Your task to perform on an android device: Go to Wikipedia Image 0: 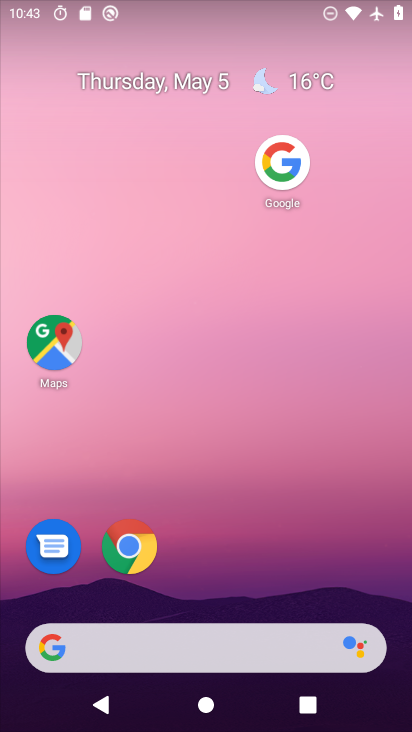
Step 0: drag from (216, 611) to (331, 105)
Your task to perform on an android device: Go to Wikipedia Image 1: 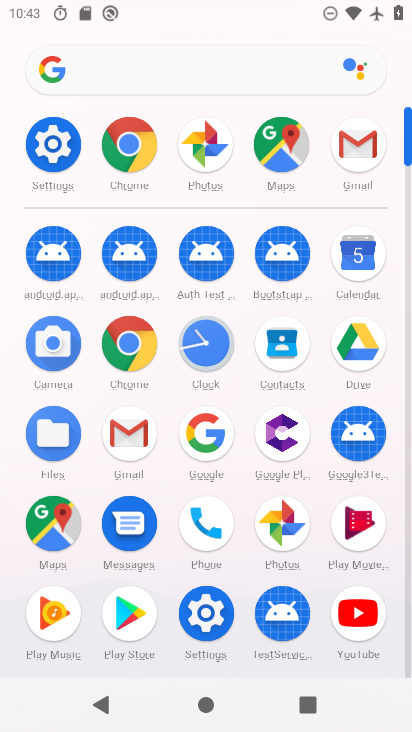
Step 1: click (133, 146)
Your task to perform on an android device: Go to Wikipedia Image 2: 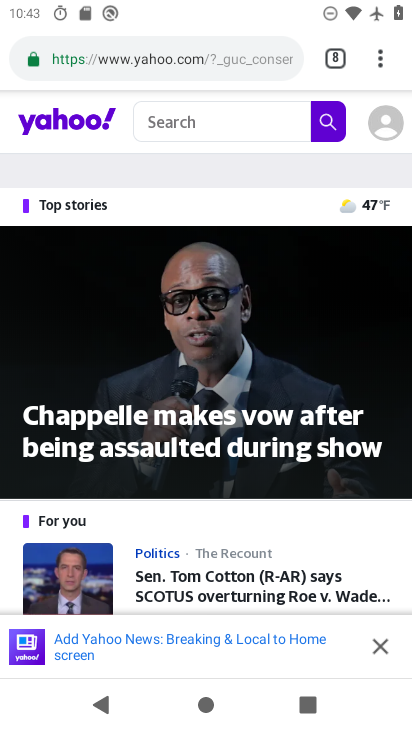
Step 2: drag from (378, 63) to (192, 120)
Your task to perform on an android device: Go to Wikipedia Image 3: 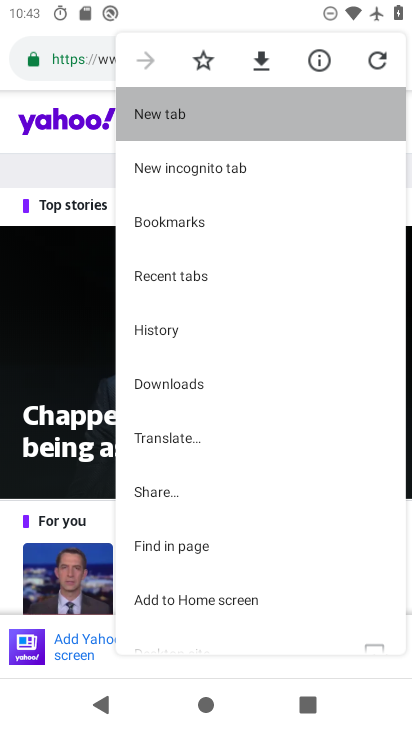
Step 3: click (192, 120)
Your task to perform on an android device: Go to Wikipedia Image 4: 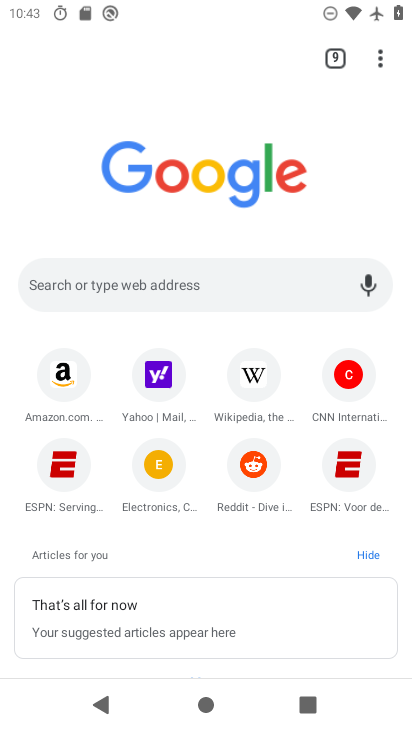
Step 4: click (251, 375)
Your task to perform on an android device: Go to Wikipedia Image 5: 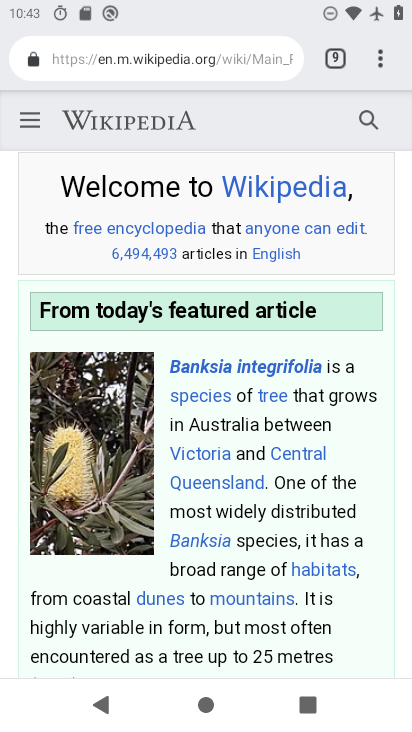
Step 5: task complete